Your task to perform on an android device: open sync settings in chrome Image 0: 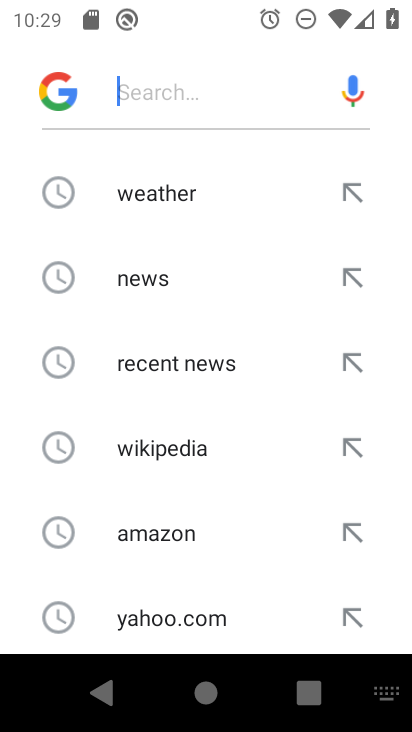
Step 0: press home button
Your task to perform on an android device: open sync settings in chrome Image 1: 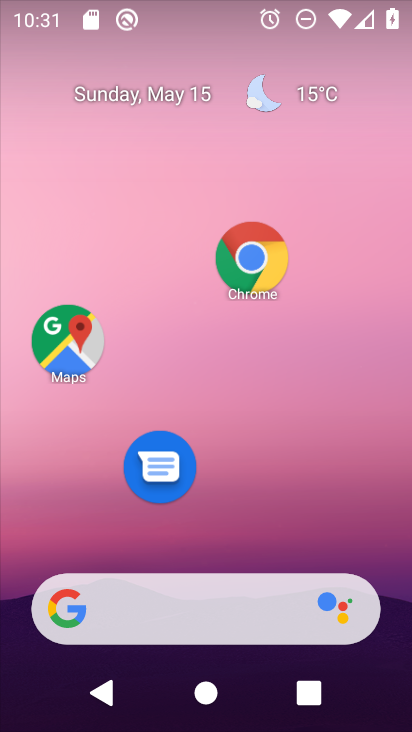
Step 1: click (261, 256)
Your task to perform on an android device: open sync settings in chrome Image 2: 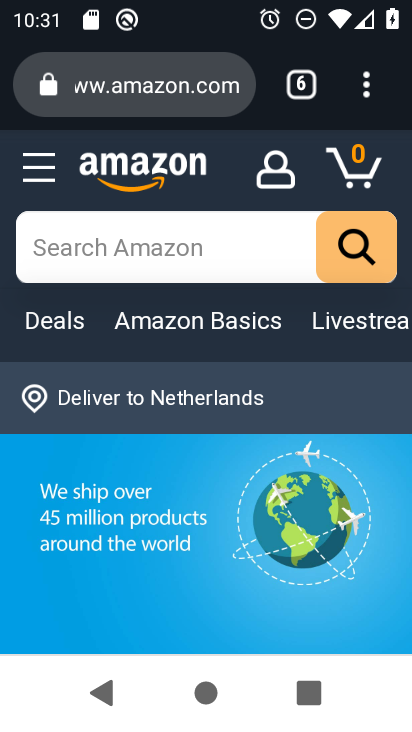
Step 2: click (358, 94)
Your task to perform on an android device: open sync settings in chrome Image 3: 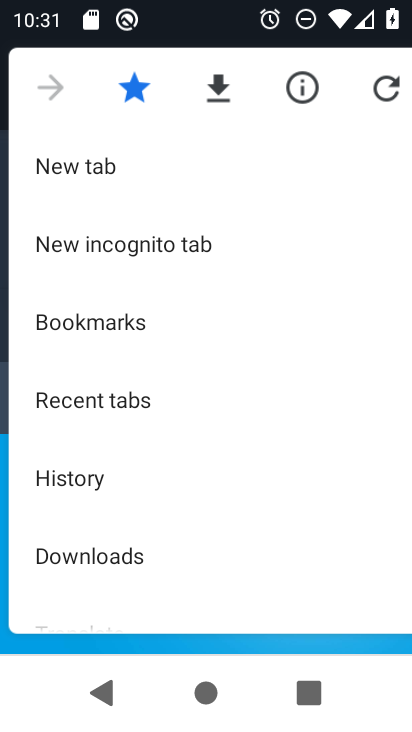
Step 3: drag from (218, 538) to (258, 90)
Your task to perform on an android device: open sync settings in chrome Image 4: 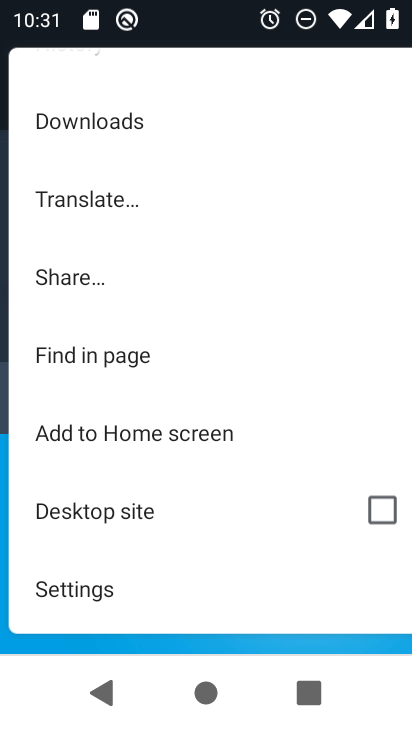
Step 4: click (103, 573)
Your task to perform on an android device: open sync settings in chrome Image 5: 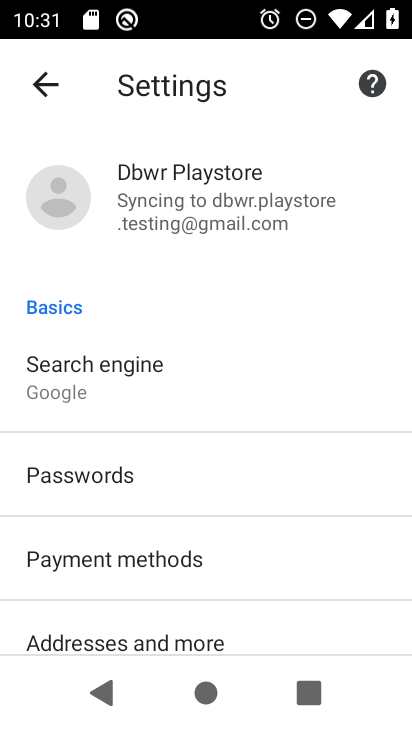
Step 5: click (294, 178)
Your task to perform on an android device: open sync settings in chrome Image 6: 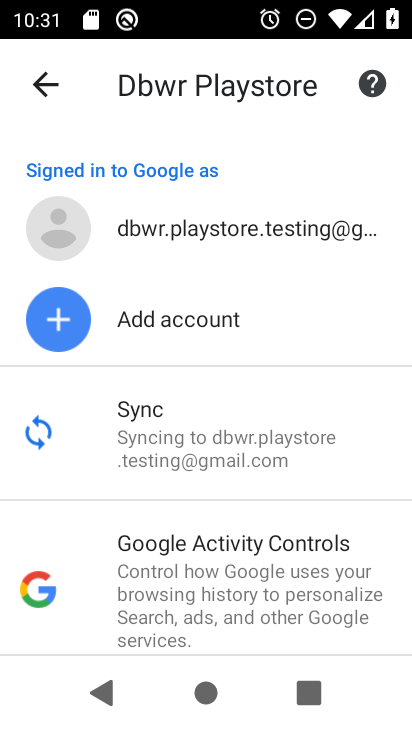
Step 6: click (91, 485)
Your task to perform on an android device: open sync settings in chrome Image 7: 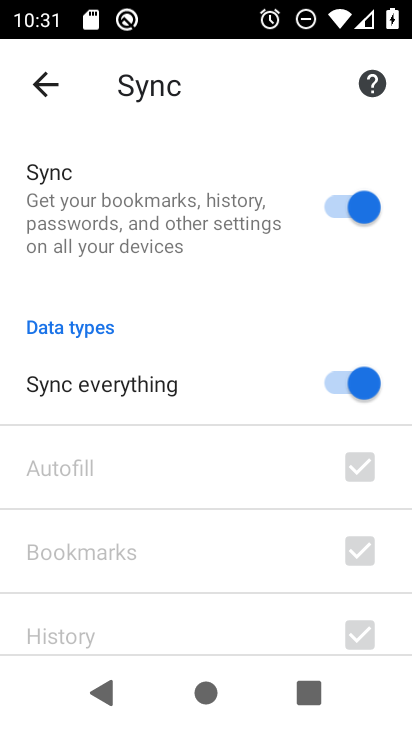
Step 7: task complete